Your task to perform on an android device: allow notifications from all sites in the chrome app Image 0: 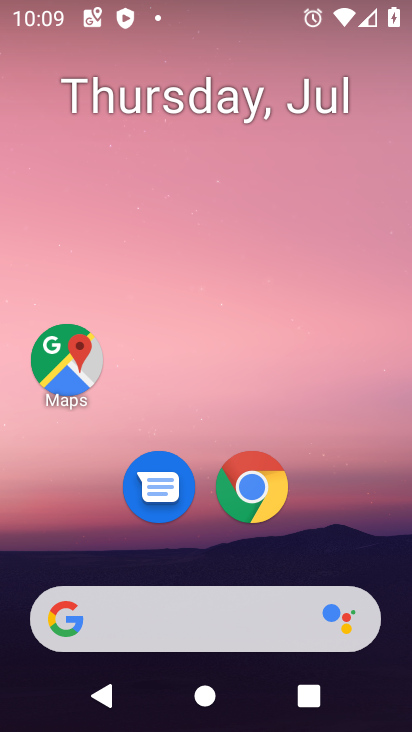
Step 0: drag from (212, 544) to (240, 139)
Your task to perform on an android device: allow notifications from all sites in the chrome app Image 1: 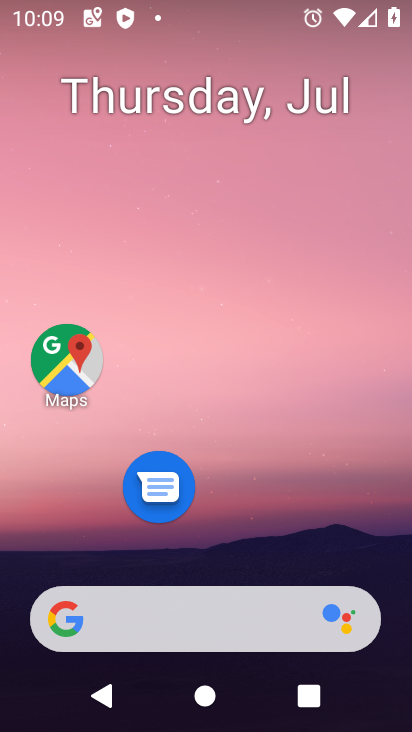
Step 1: drag from (190, 713) to (284, 122)
Your task to perform on an android device: allow notifications from all sites in the chrome app Image 2: 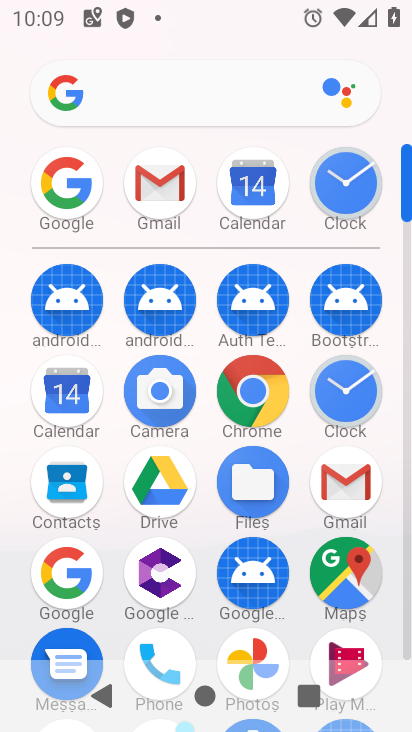
Step 2: drag from (218, 436) to (215, 258)
Your task to perform on an android device: allow notifications from all sites in the chrome app Image 3: 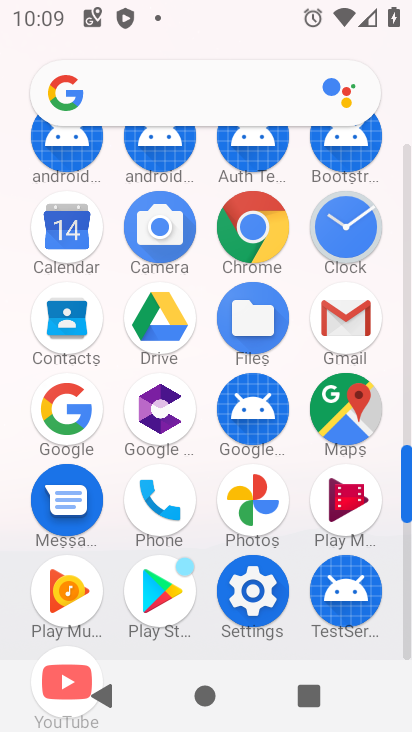
Step 3: click (248, 242)
Your task to perform on an android device: allow notifications from all sites in the chrome app Image 4: 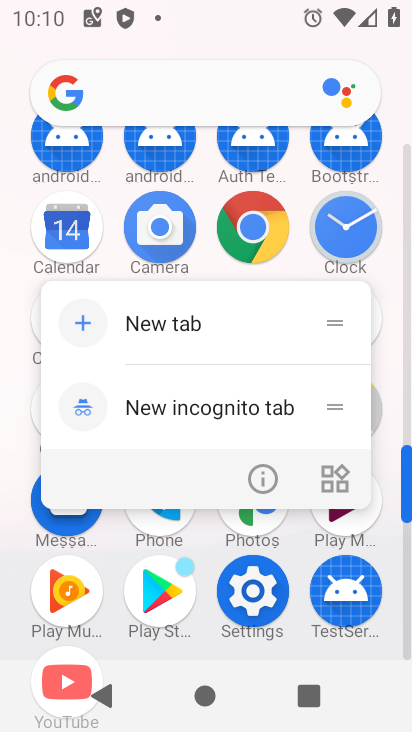
Step 4: click (248, 241)
Your task to perform on an android device: allow notifications from all sites in the chrome app Image 5: 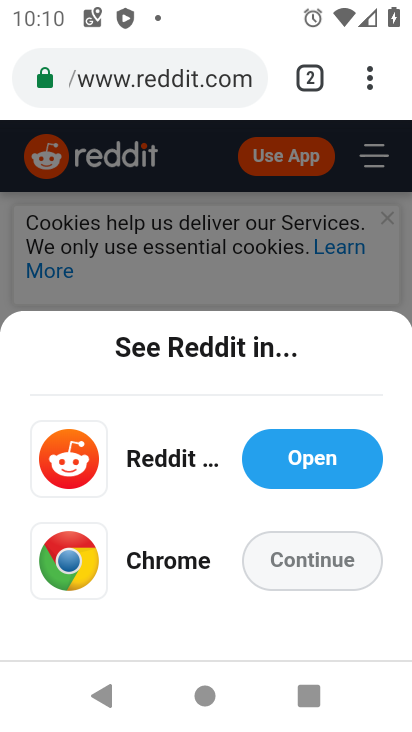
Step 5: click (374, 98)
Your task to perform on an android device: allow notifications from all sites in the chrome app Image 6: 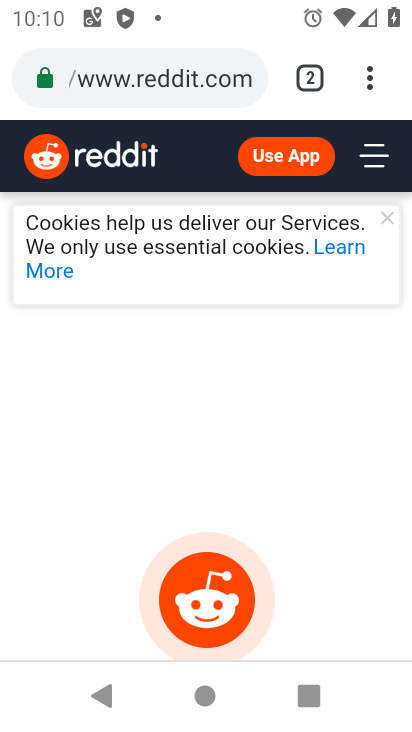
Step 6: click (372, 75)
Your task to perform on an android device: allow notifications from all sites in the chrome app Image 7: 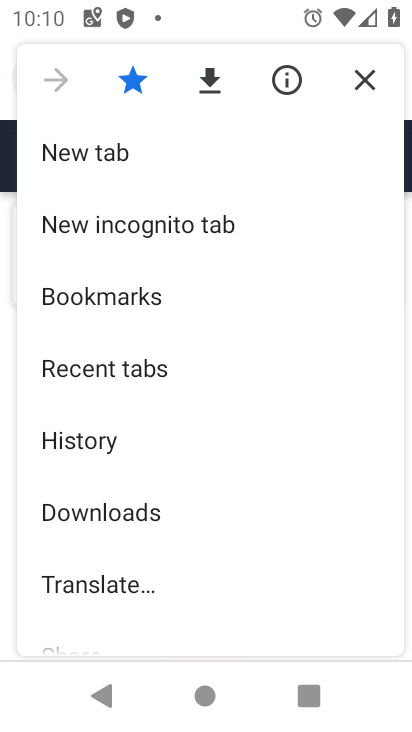
Step 7: drag from (109, 606) to (143, 142)
Your task to perform on an android device: allow notifications from all sites in the chrome app Image 8: 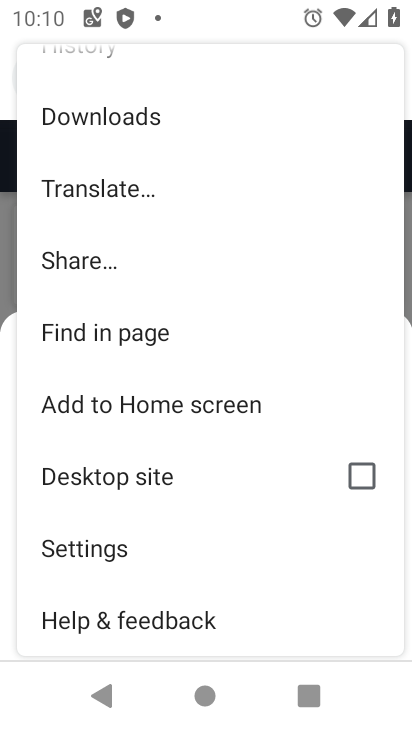
Step 8: click (92, 556)
Your task to perform on an android device: allow notifications from all sites in the chrome app Image 9: 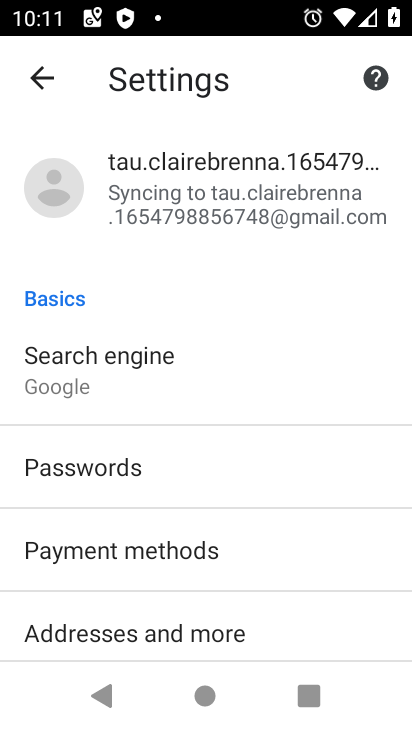
Step 9: drag from (257, 547) to (291, 214)
Your task to perform on an android device: allow notifications from all sites in the chrome app Image 10: 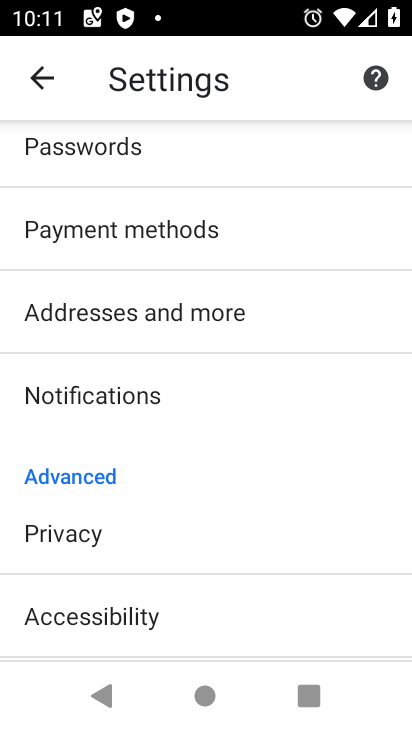
Step 10: click (101, 408)
Your task to perform on an android device: allow notifications from all sites in the chrome app Image 11: 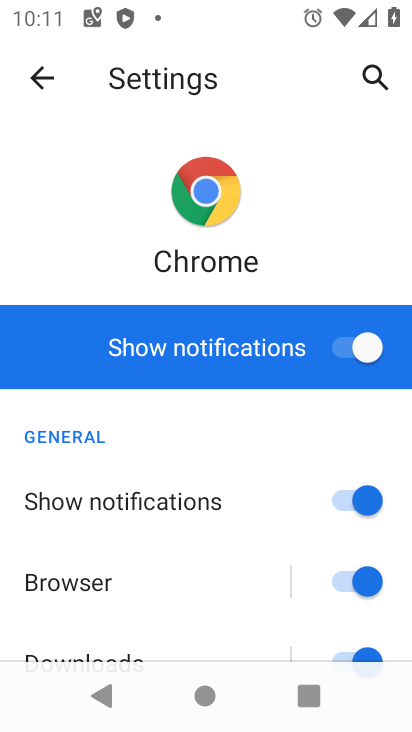
Step 11: task complete